Your task to perform on an android device: turn on notifications settings in the gmail app Image 0: 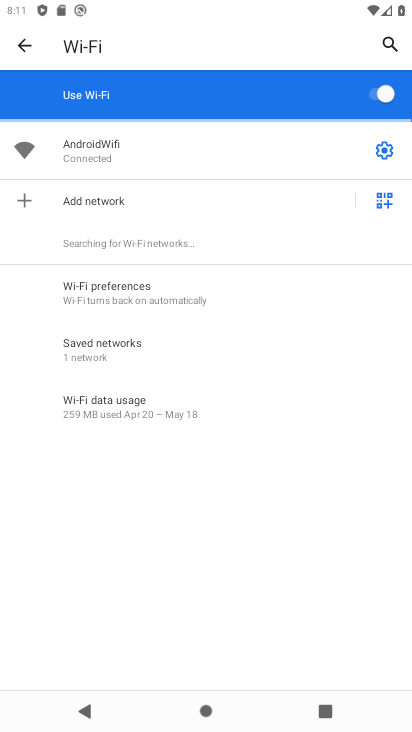
Step 0: press home button
Your task to perform on an android device: turn on notifications settings in the gmail app Image 1: 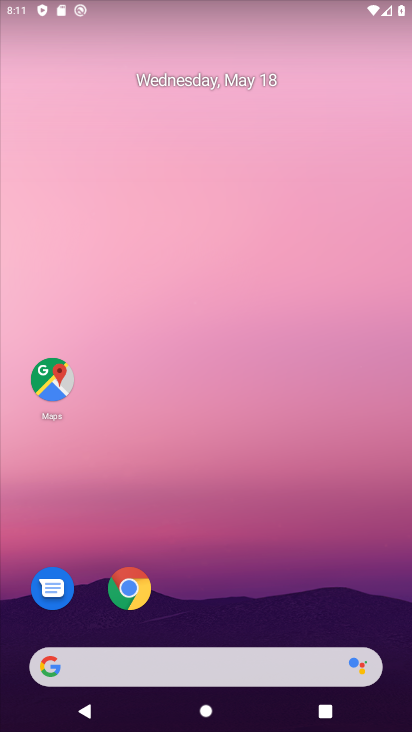
Step 1: drag from (331, 635) to (317, 12)
Your task to perform on an android device: turn on notifications settings in the gmail app Image 2: 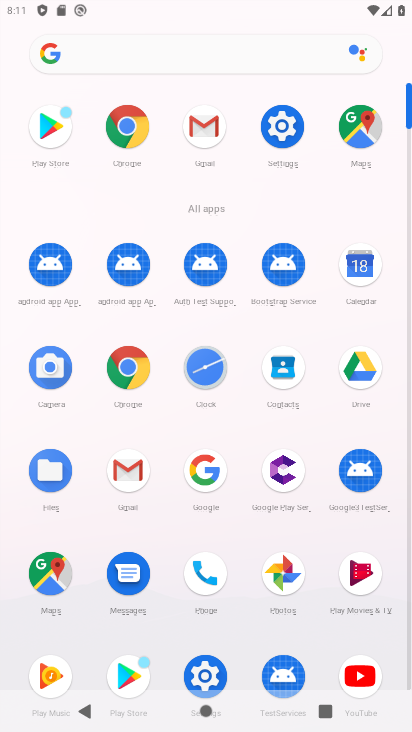
Step 2: click (198, 126)
Your task to perform on an android device: turn on notifications settings in the gmail app Image 3: 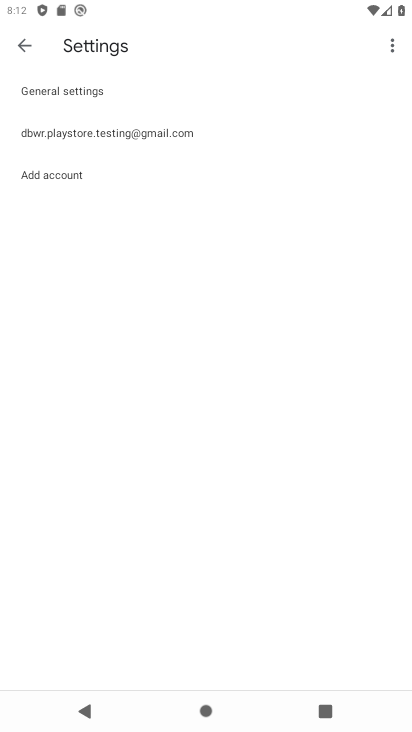
Step 3: click (45, 92)
Your task to perform on an android device: turn on notifications settings in the gmail app Image 4: 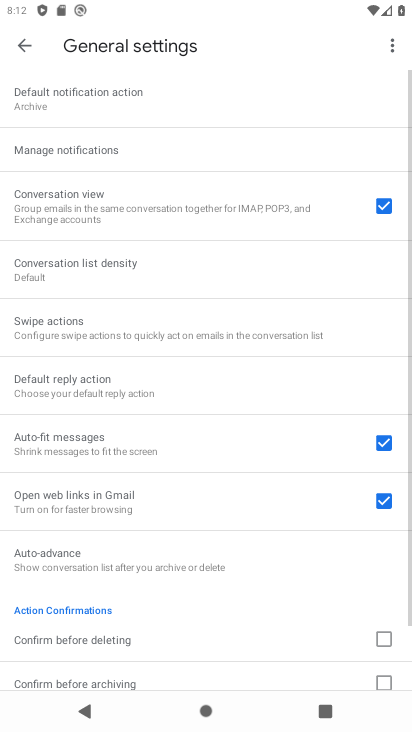
Step 4: click (51, 153)
Your task to perform on an android device: turn on notifications settings in the gmail app Image 5: 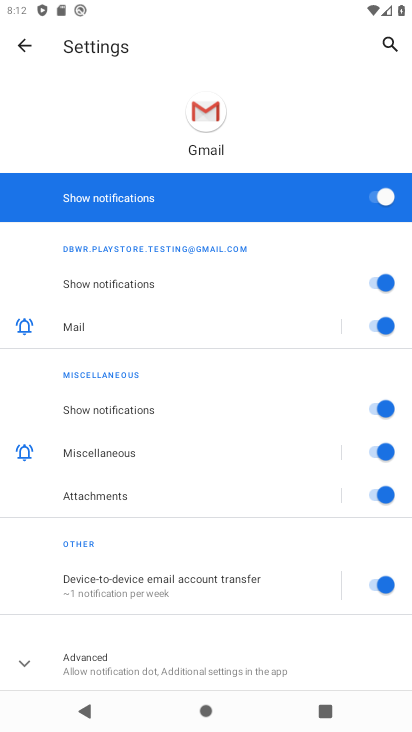
Step 5: task complete